Your task to perform on an android device: find snoozed emails in the gmail app Image 0: 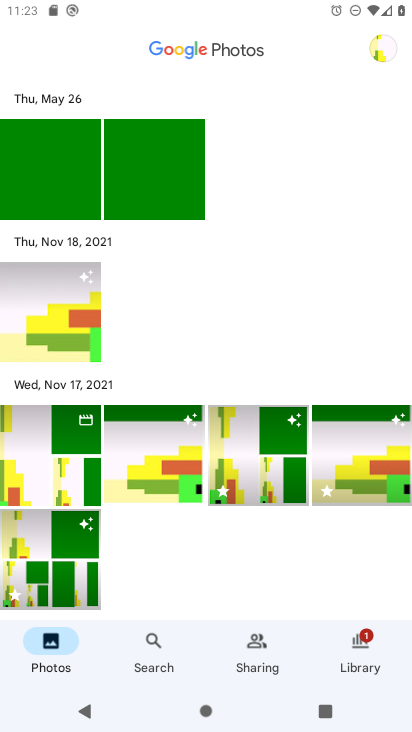
Step 0: press home button
Your task to perform on an android device: find snoozed emails in the gmail app Image 1: 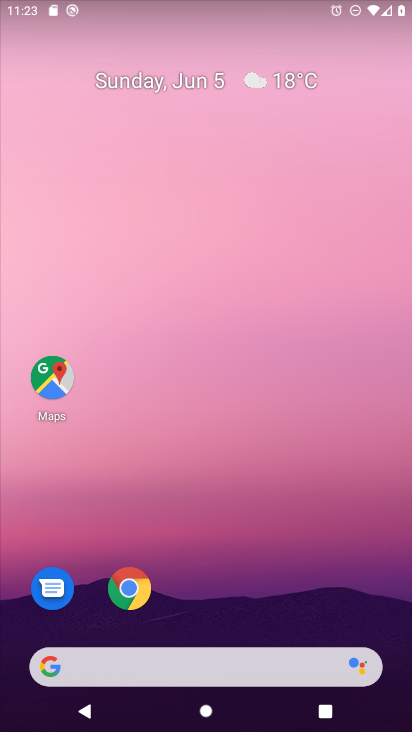
Step 1: drag from (365, 582) to (346, 129)
Your task to perform on an android device: find snoozed emails in the gmail app Image 2: 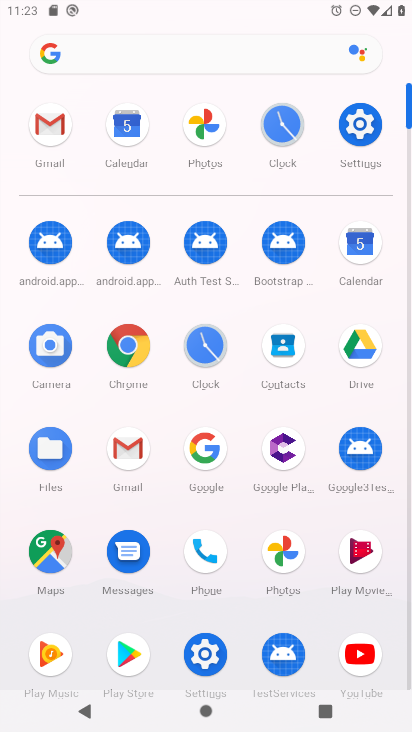
Step 2: click (139, 449)
Your task to perform on an android device: find snoozed emails in the gmail app Image 3: 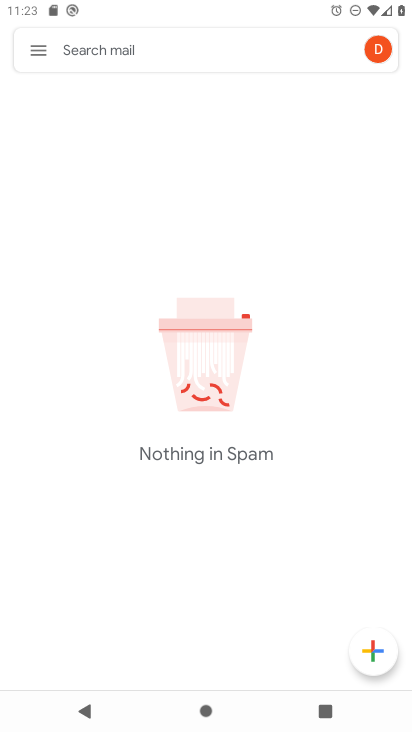
Step 3: click (36, 44)
Your task to perform on an android device: find snoozed emails in the gmail app Image 4: 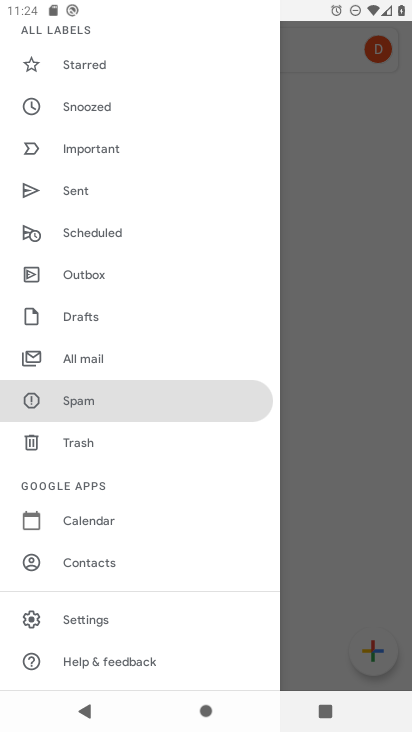
Step 4: drag from (190, 519) to (203, 265)
Your task to perform on an android device: find snoozed emails in the gmail app Image 5: 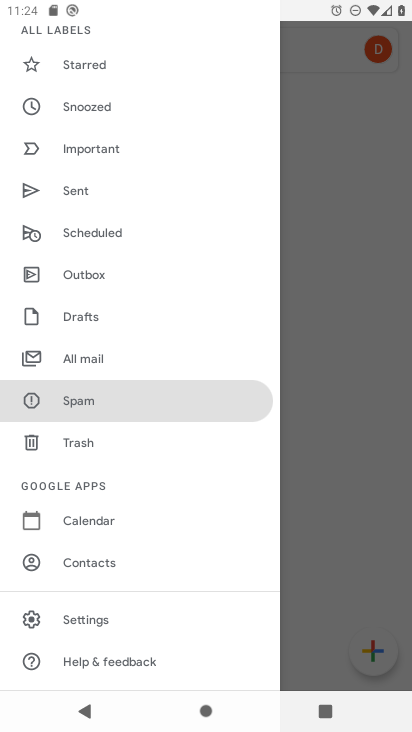
Step 5: drag from (213, 211) to (197, 373)
Your task to perform on an android device: find snoozed emails in the gmail app Image 6: 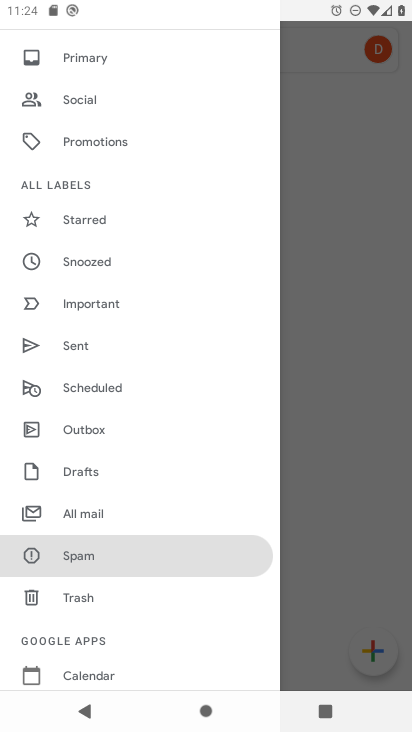
Step 6: drag from (197, 199) to (208, 426)
Your task to perform on an android device: find snoozed emails in the gmail app Image 7: 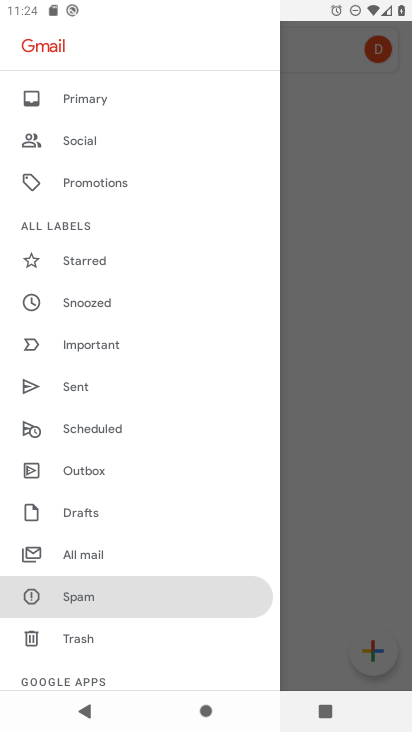
Step 7: click (115, 303)
Your task to perform on an android device: find snoozed emails in the gmail app Image 8: 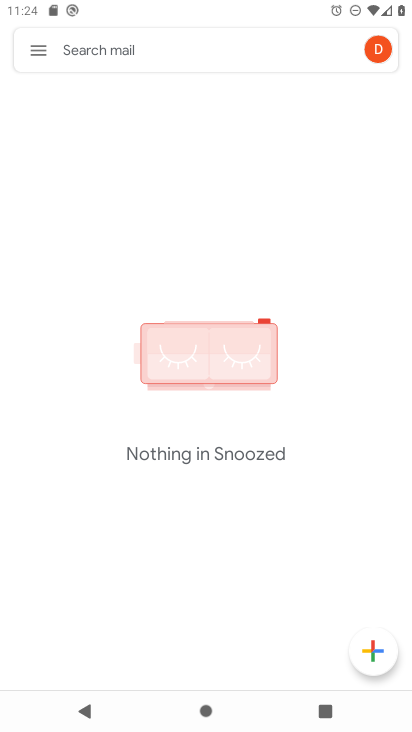
Step 8: task complete